Your task to perform on an android device: Go to accessibility settings Image 0: 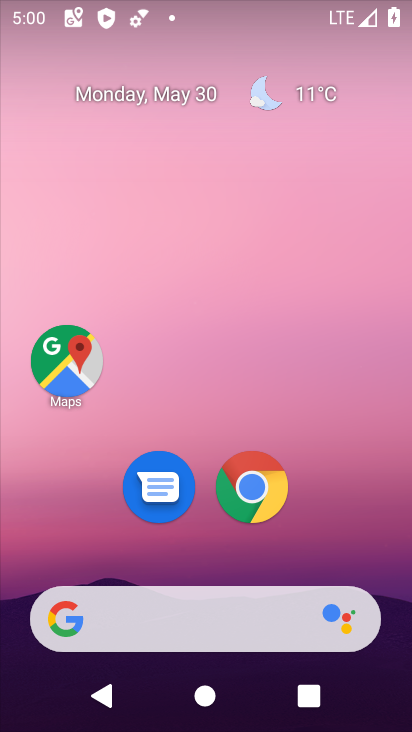
Step 0: drag from (408, 610) to (331, 104)
Your task to perform on an android device: Go to accessibility settings Image 1: 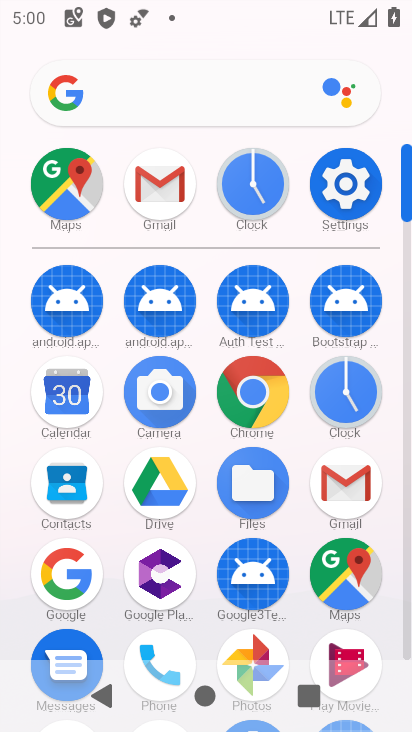
Step 1: click (411, 648)
Your task to perform on an android device: Go to accessibility settings Image 2: 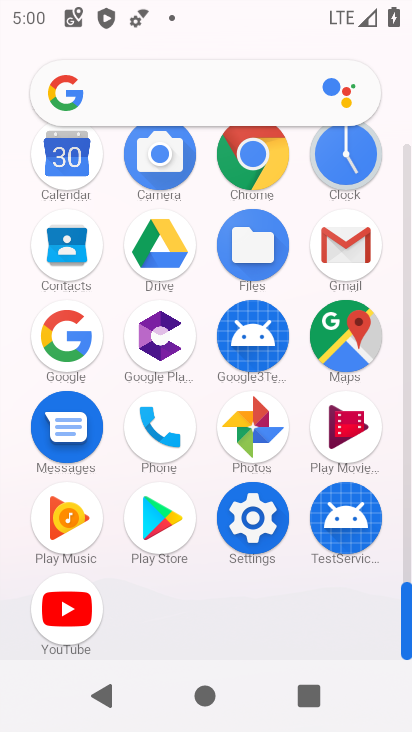
Step 2: click (255, 515)
Your task to perform on an android device: Go to accessibility settings Image 3: 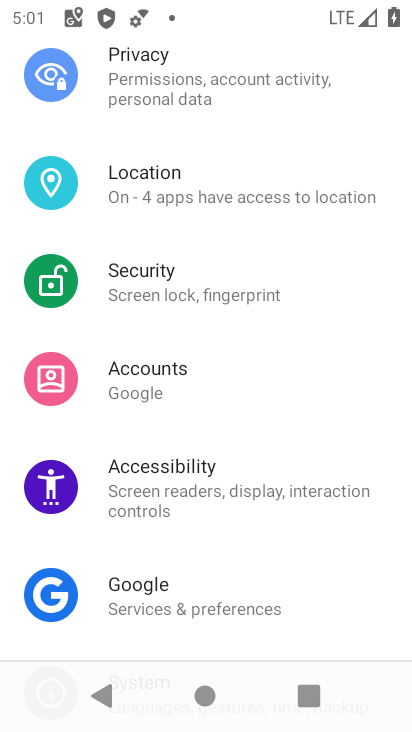
Step 3: click (143, 475)
Your task to perform on an android device: Go to accessibility settings Image 4: 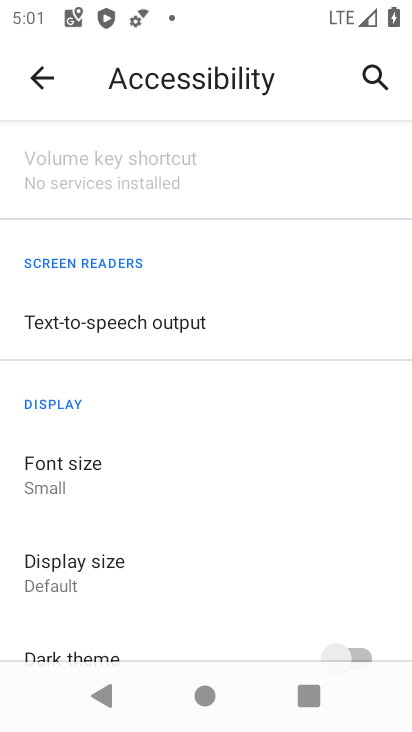
Step 4: task complete